Your task to perform on an android device: What's the weather going to be this weekend? Image 0: 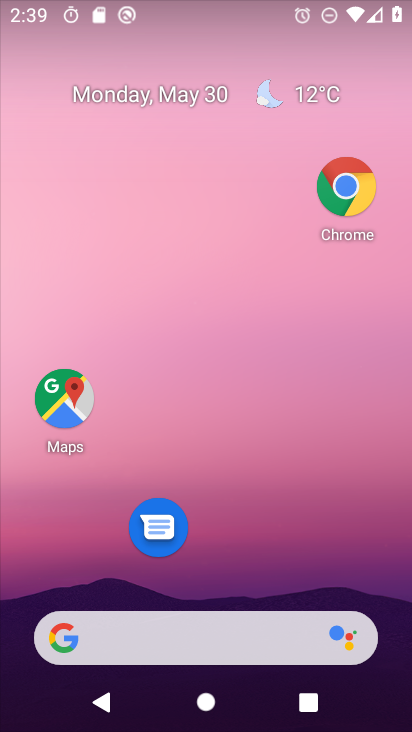
Step 0: drag from (238, 513) to (272, 242)
Your task to perform on an android device: What's the weather going to be this weekend? Image 1: 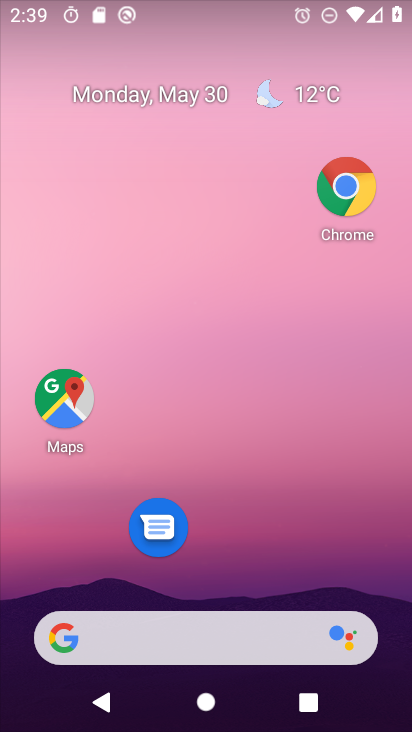
Step 1: click (169, 640)
Your task to perform on an android device: What's the weather going to be this weekend? Image 2: 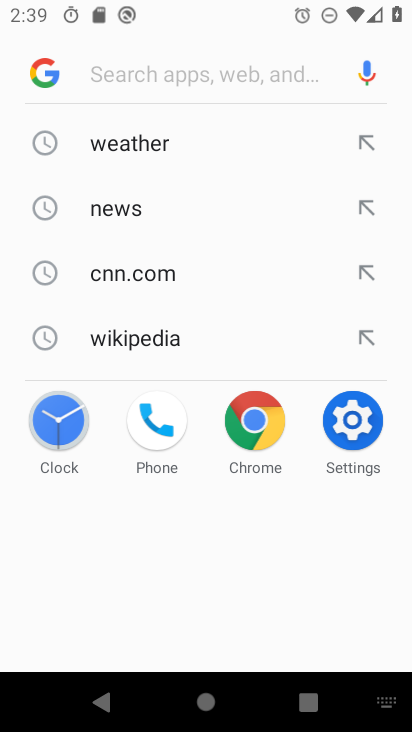
Step 2: type "weather going to be this weekend?"
Your task to perform on an android device: What's the weather going to be this weekend? Image 3: 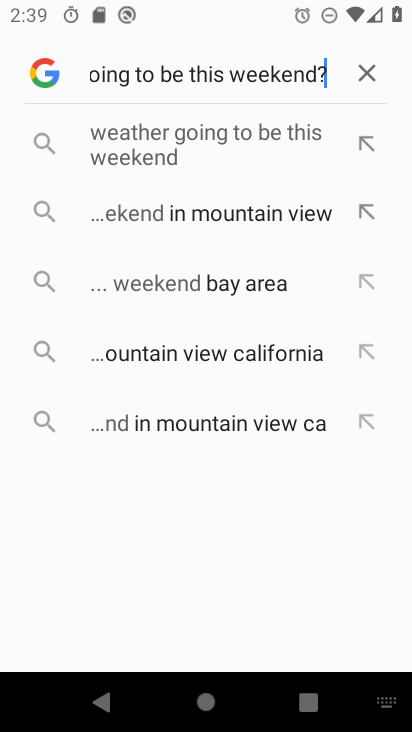
Step 3: click (157, 141)
Your task to perform on an android device: What's the weather going to be this weekend? Image 4: 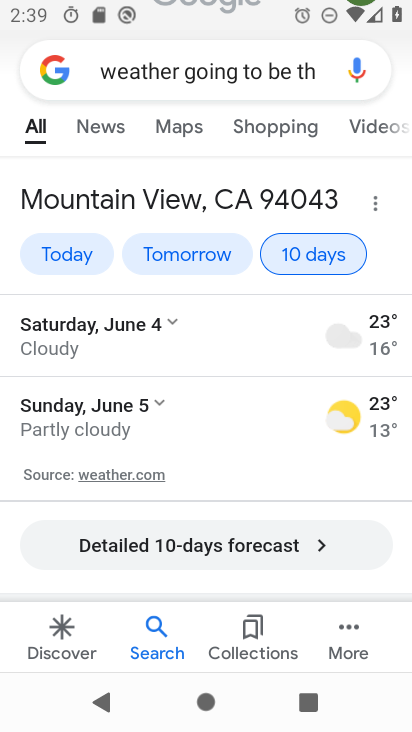
Step 4: task complete